Your task to perform on an android device: create a new album in the google photos Image 0: 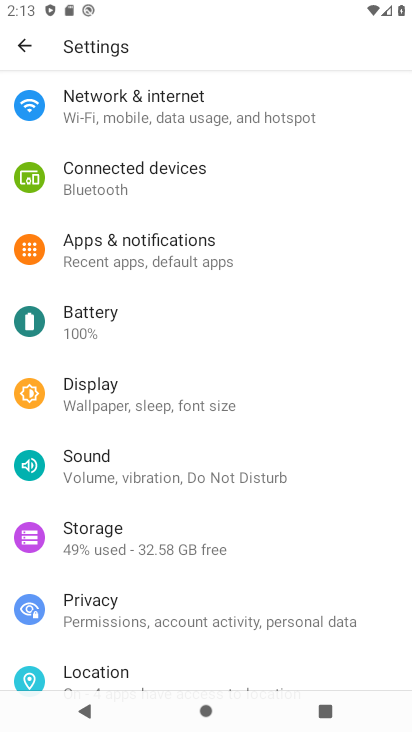
Step 0: press home button
Your task to perform on an android device: create a new album in the google photos Image 1: 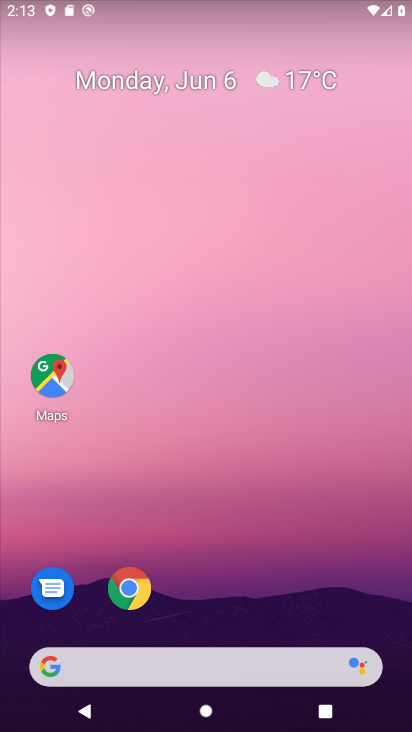
Step 1: drag from (203, 664) to (172, 68)
Your task to perform on an android device: create a new album in the google photos Image 2: 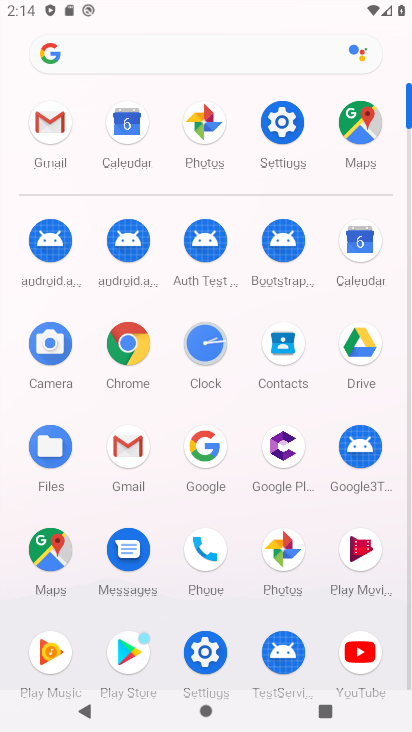
Step 2: click (288, 543)
Your task to perform on an android device: create a new album in the google photos Image 3: 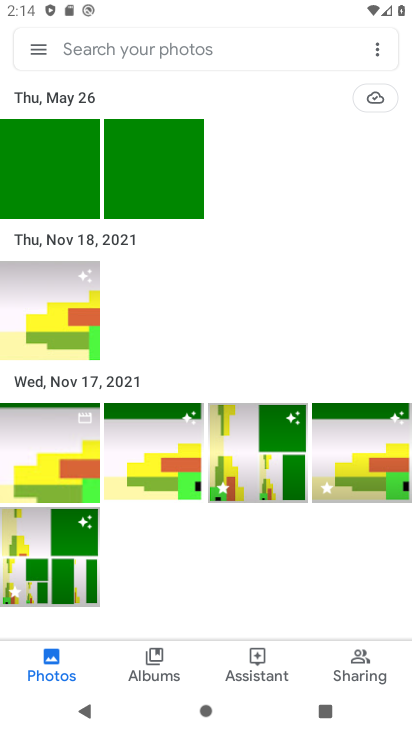
Step 3: click (264, 673)
Your task to perform on an android device: create a new album in the google photos Image 4: 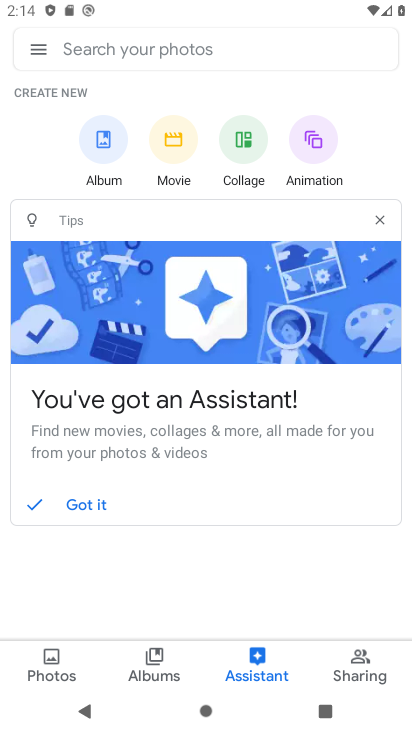
Step 4: click (99, 164)
Your task to perform on an android device: create a new album in the google photos Image 5: 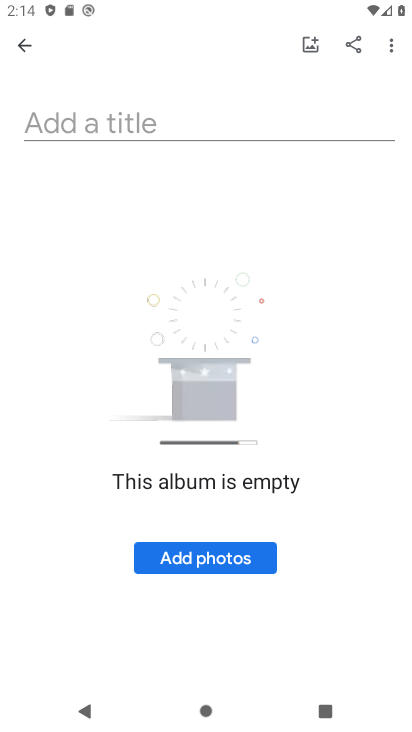
Step 5: click (155, 113)
Your task to perform on an android device: create a new album in the google photos Image 6: 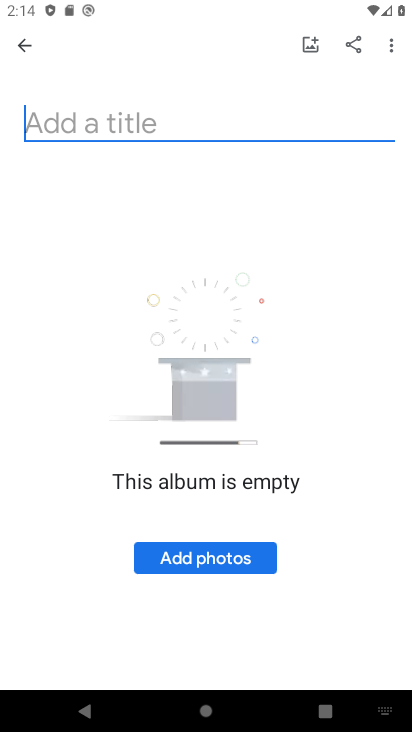
Step 6: type "fhdskf"
Your task to perform on an android device: create a new album in the google photos Image 7: 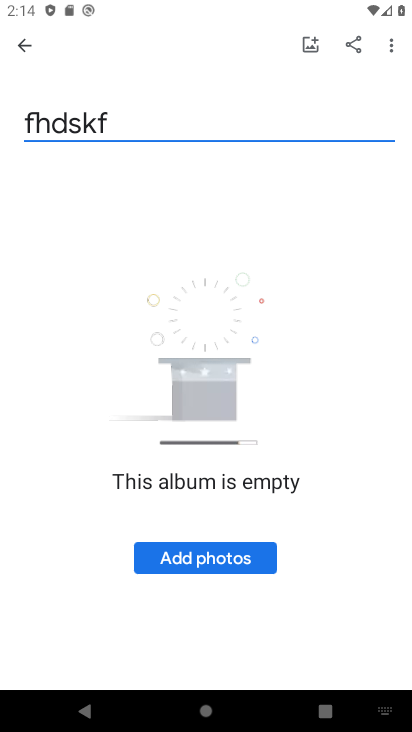
Step 7: click (230, 552)
Your task to perform on an android device: create a new album in the google photos Image 8: 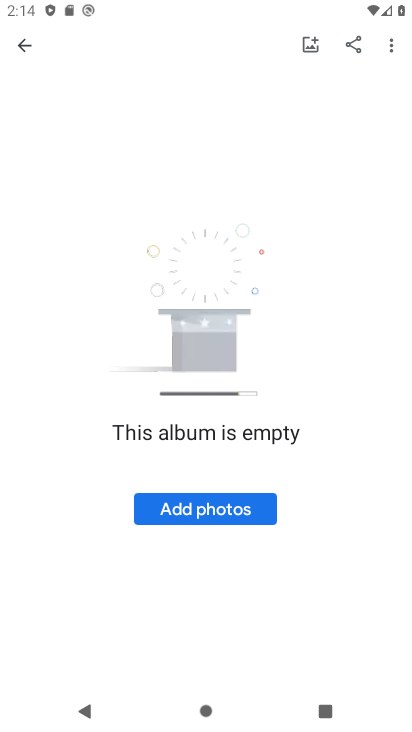
Step 8: click (229, 505)
Your task to perform on an android device: create a new album in the google photos Image 9: 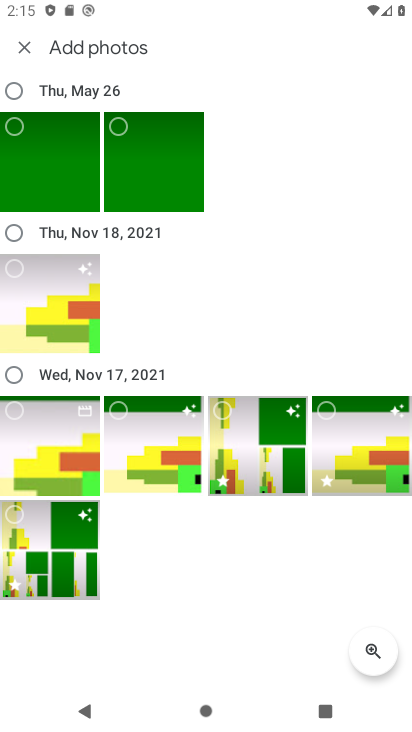
Step 9: click (7, 83)
Your task to perform on an android device: create a new album in the google photos Image 10: 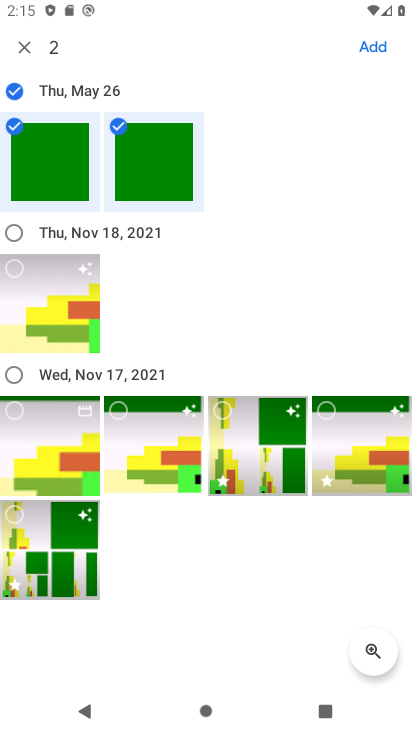
Step 10: click (15, 226)
Your task to perform on an android device: create a new album in the google photos Image 11: 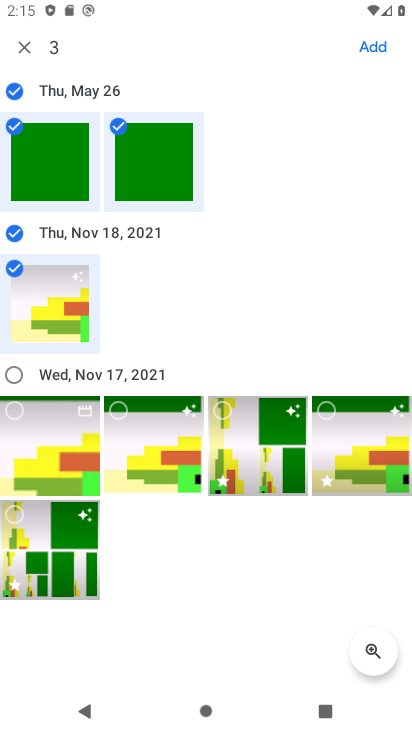
Step 11: click (22, 371)
Your task to perform on an android device: create a new album in the google photos Image 12: 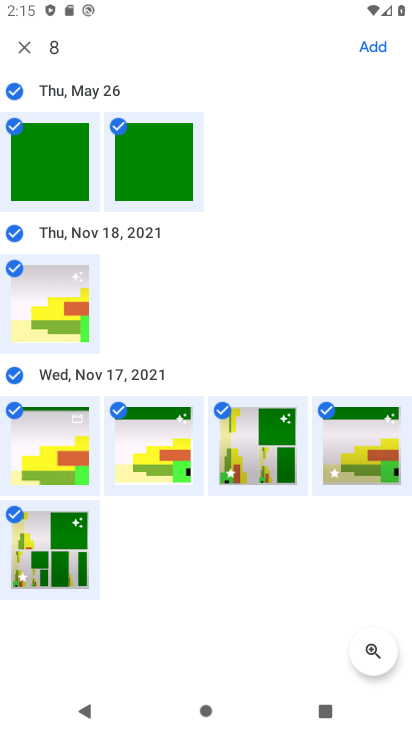
Step 12: click (381, 40)
Your task to perform on an android device: create a new album in the google photos Image 13: 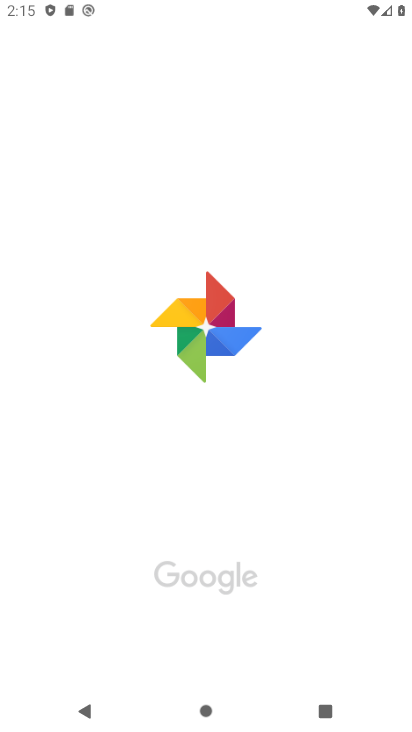
Step 13: task complete